Your task to perform on an android device: What is the recent news? Image 0: 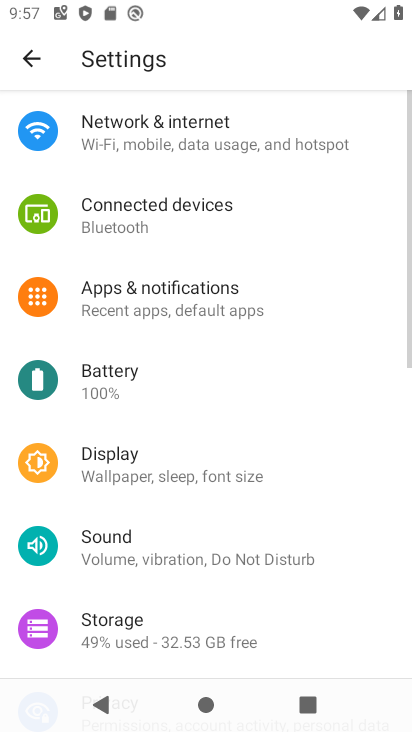
Step 0: press home button
Your task to perform on an android device: What is the recent news? Image 1: 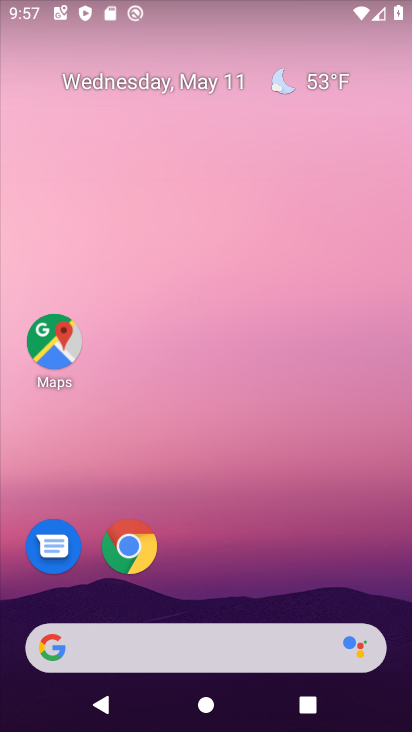
Step 1: drag from (401, 622) to (334, 94)
Your task to perform on an android device: What is the recent news? Image 2: 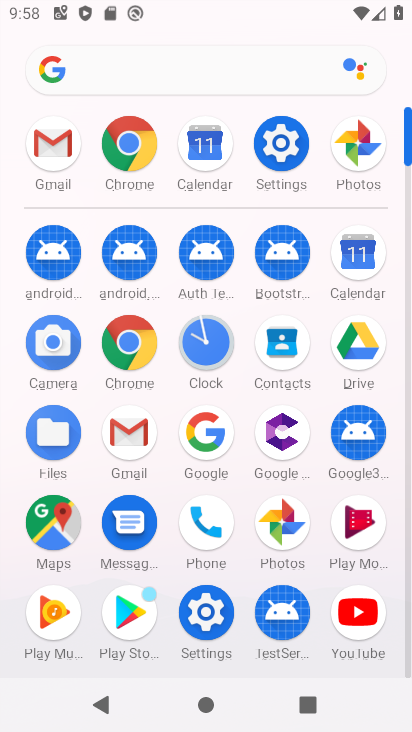
Step 2: click (133, 357)
Your task to perform on an android device: What is the recent news? Image 3: 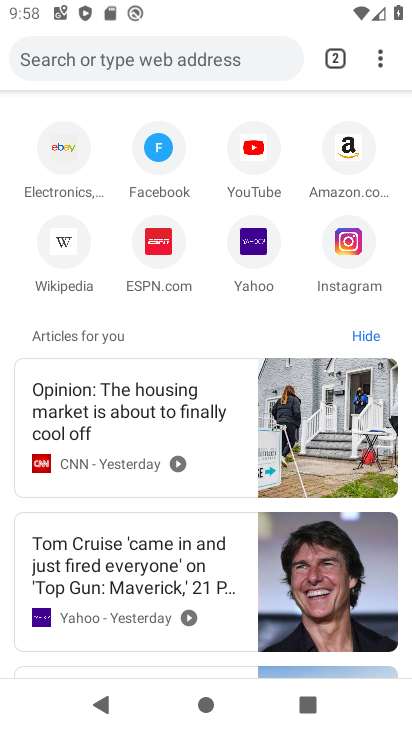
Step 3: click (164, 435)
Your task to perform on an android device: What is the recent news? Image 4: 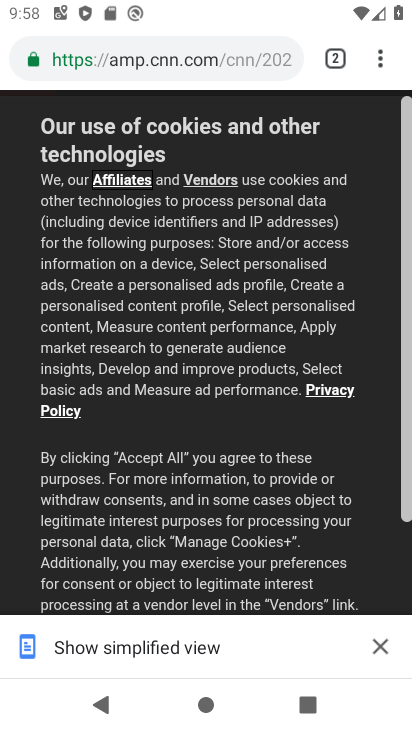
Step 4: task complete